Your task to perform on an android device: Open calendar and show me the fourth week of next month Image 0: 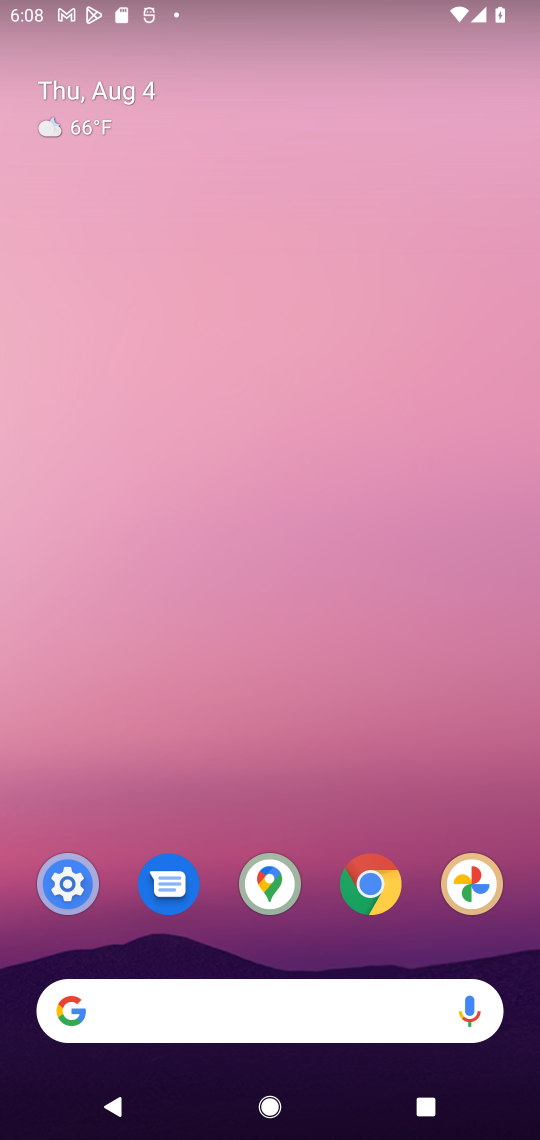
Step 0: drag from (225, 976) to (189, 122)
Your task to perform on an android device: Open calendar and show me the fourth week of next month Image 1: 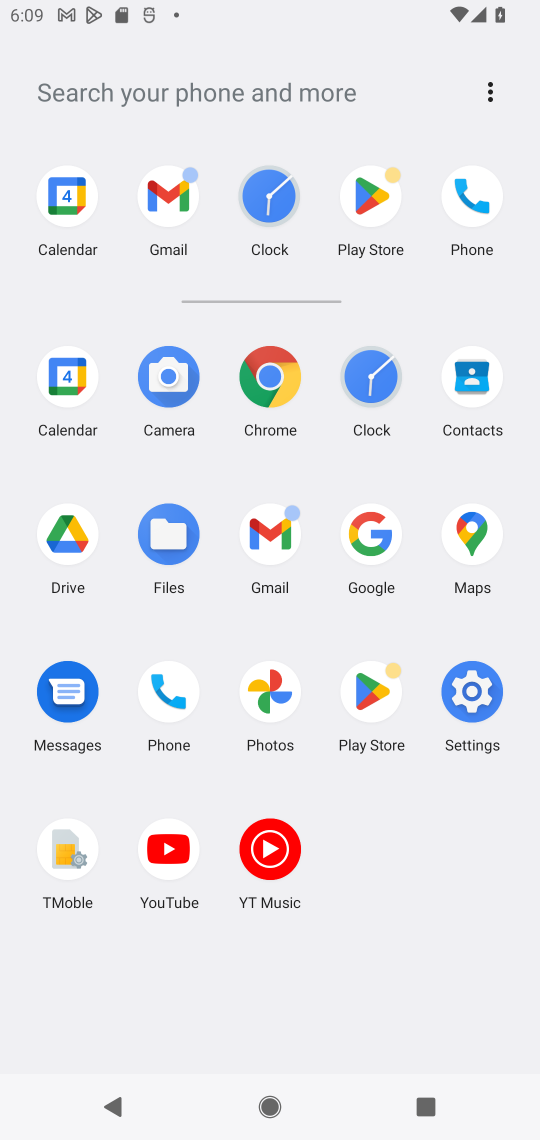
Step 1: task complete